Your task to perform on an android device: Open sound settings Image 0: 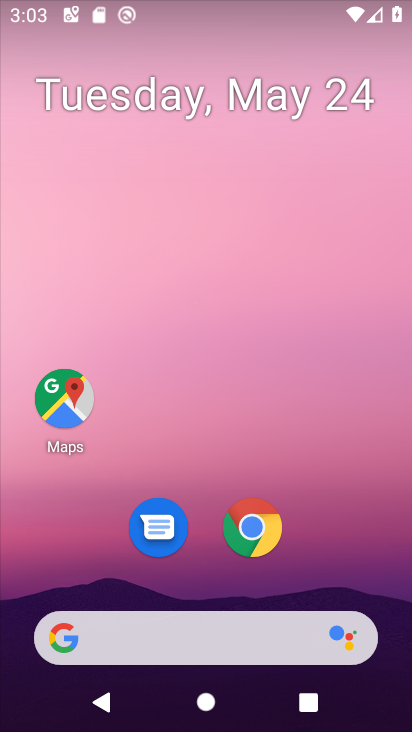
Step 0: drag from (342, 602) to (332, 6)
Your task to perform on an android device: Open sound settings Image 1: 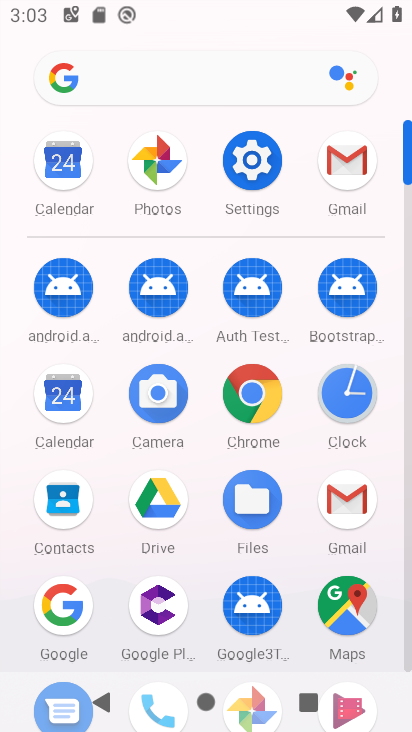
Step 1: click (247, 167)
Your task to perform on an android device: Open sound settings Image 2: 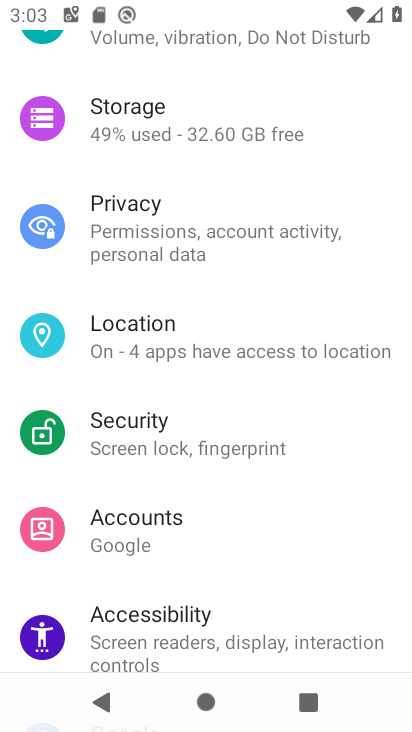
Step 2: drag from (310, 213) to (306, 503)
Your task to perform on an android device: Open sound settings Image 3: 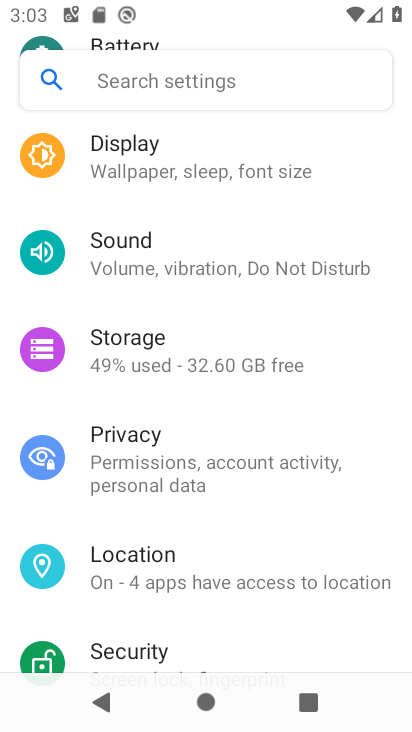
Step 3: drag from (295, 178) to (291, 251)
Your task to perform on an android device: Open sound settings Image 4: 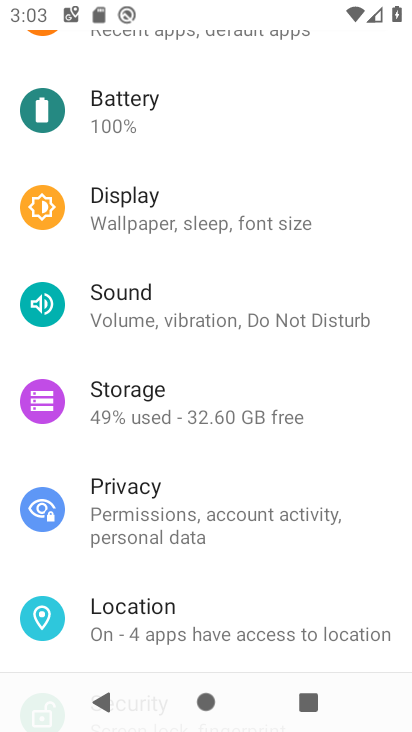
Step 4: click (115, 314)
Your task to perform on an android device: Open sound settings Image 5: 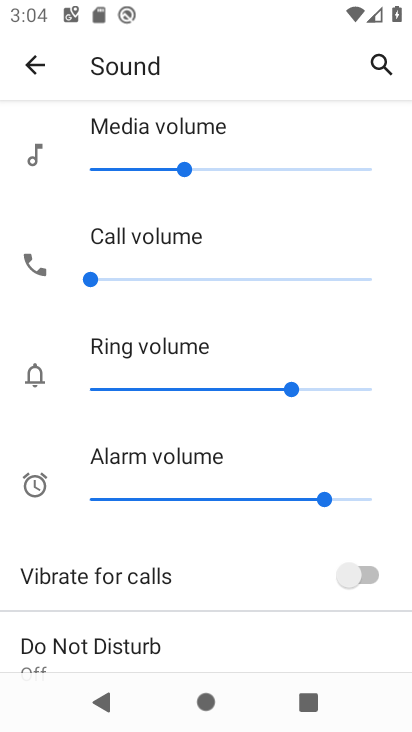
Step 5: task complete